Your task to perform on an android device: Open Amazon Image 0: 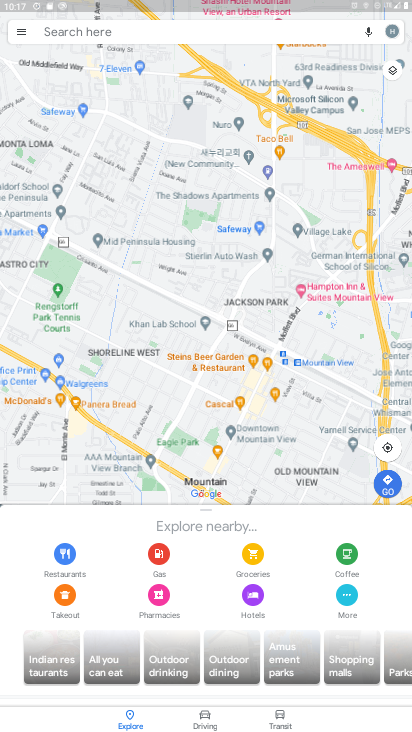
Step 0: press home button
Your task to perform on an android device: Open Amazon Image 1: 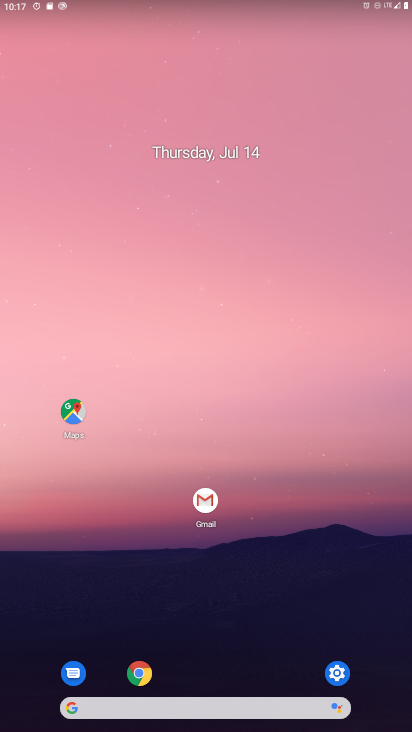
Step 1: click (143, 668)
Your task to perform on an android device: Open Amazon Image 2: 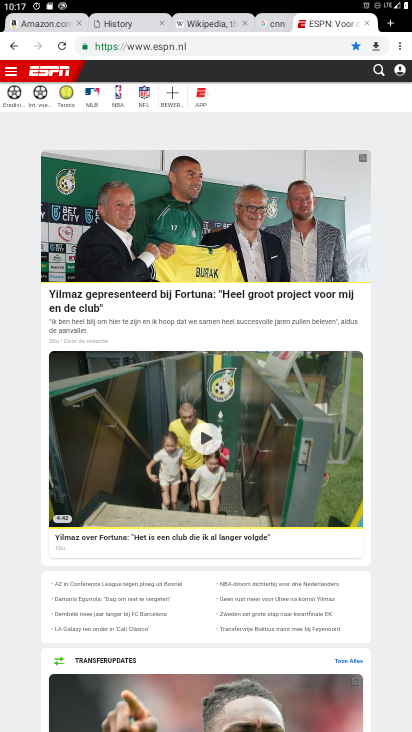
Step 2: click (392, 27)
Your task to perform on an android device: Open Amazon Image 3: 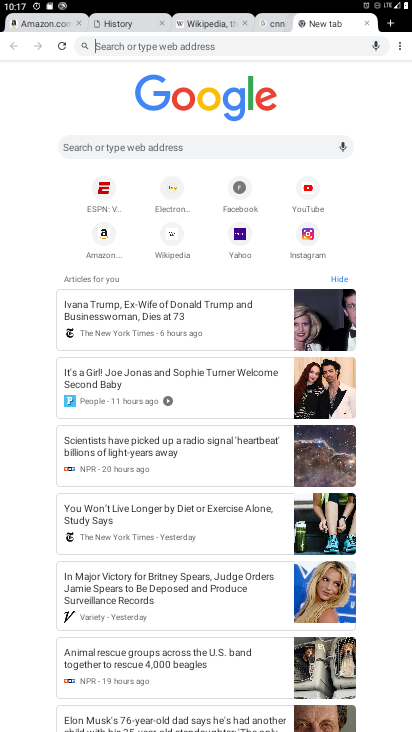
Step 3: click (107, 242)
Your task to perform on an android device: Open Amazon Image 4: 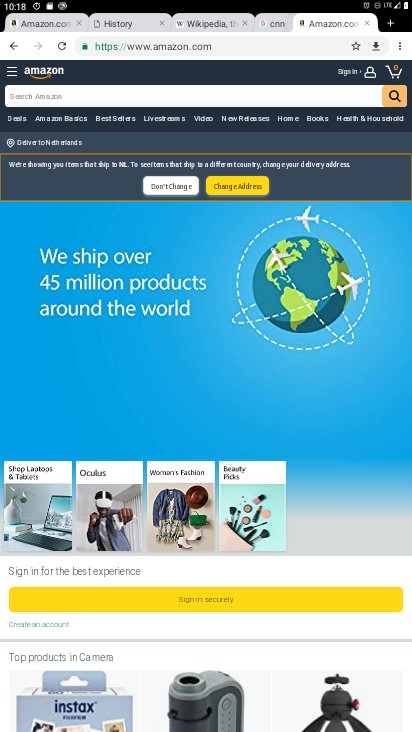
Step 4: task complete